Your task to perform on an android device: turn off javascript in the chrome app Image 0: 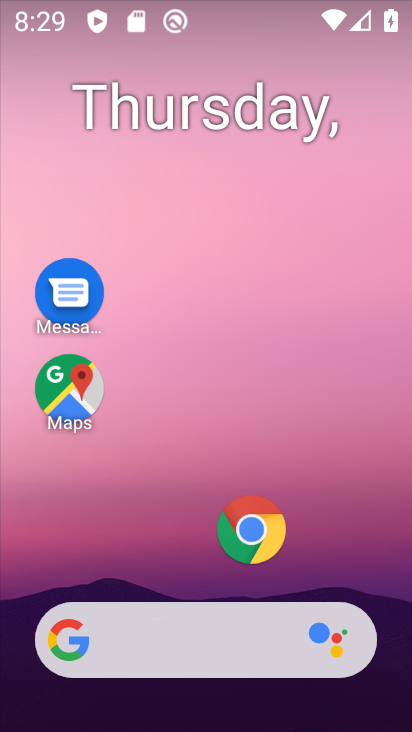
Step 0: click (200, 243)
Your task to perform on an android device: turn off javascript in the chrome app Image 1: 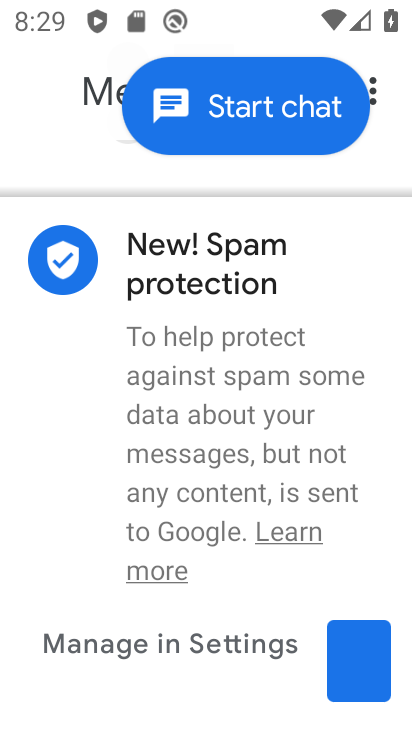
Step 1: press home button
Your task to perform on an android device: turn off javascript in the chrome app Image 2: 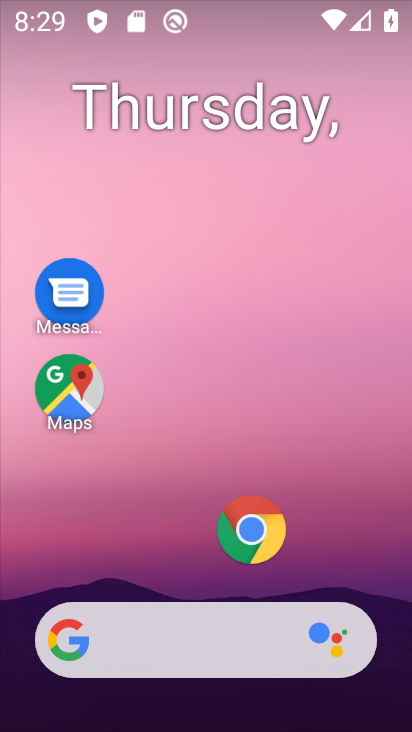
Step 2: click (251, 535)
Your task to perform on an android device: turn off javascript in the chrome app Image 3: 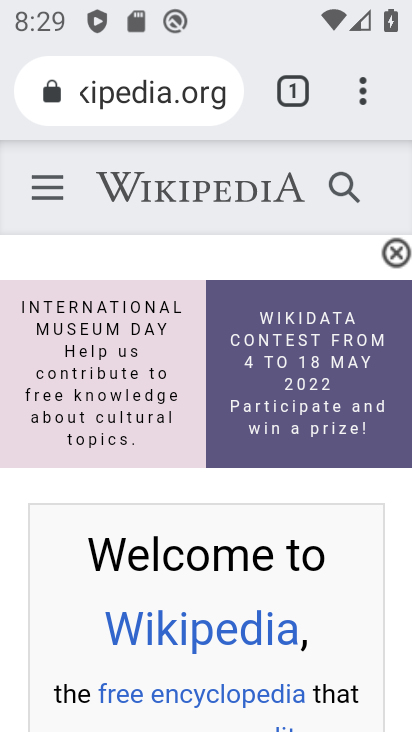
Step 3: click (383, 93)
Your task to perform on an android device: turn off javascript in the chrome app Image 4: 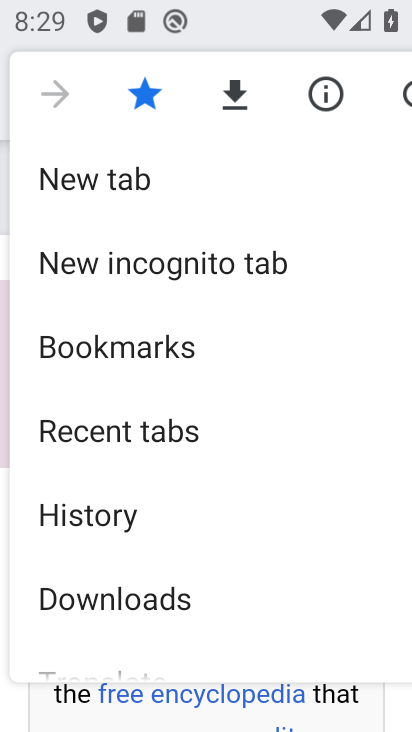
Step 4: drag from (114, 540) to (158, 224)
Your task to perform on an android device: turn off javascript in the chrome app Image 5: 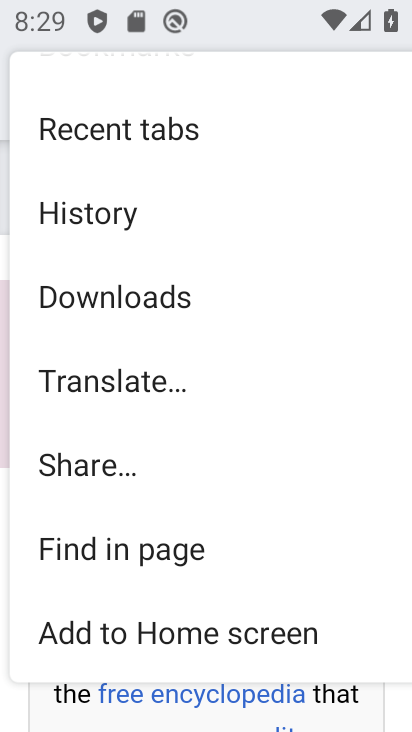
Step 5: drag from (76, 541) to (156, 211)
Your task to perform on an android device: turn off javascript in the chrome app Image 6: 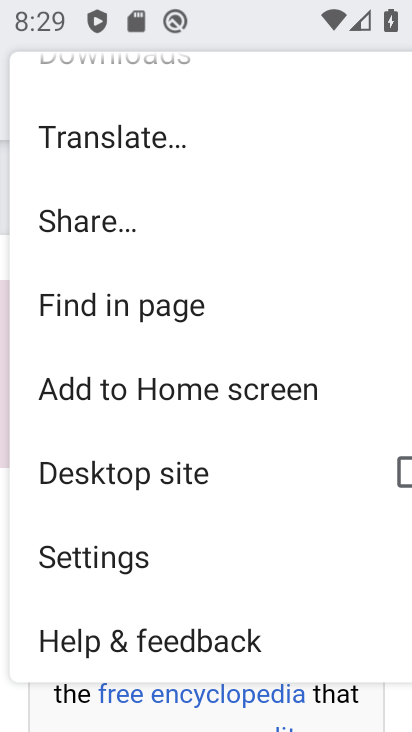
Step 6: click (125, 564)
Your task to perform on an android device: turn off javascript in the chrome app Image 7: 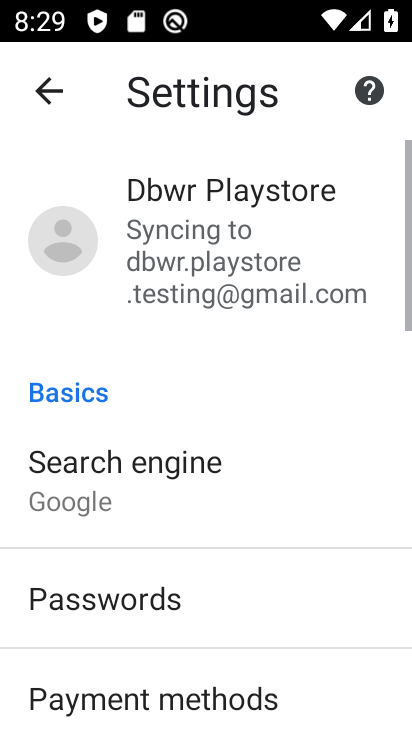
Step 7: drag from (125, 564) to (191, 109)
Your task to perform on an android device: turn off javascript in the chrome app Image 8: 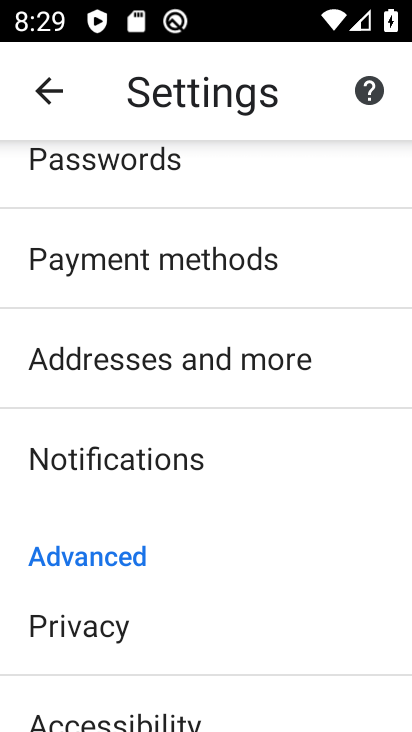
Step 8: drag from (150, 602) to (216, 140)
Your task to perform on an android device: turn off javascript in the chrome app Image 9: 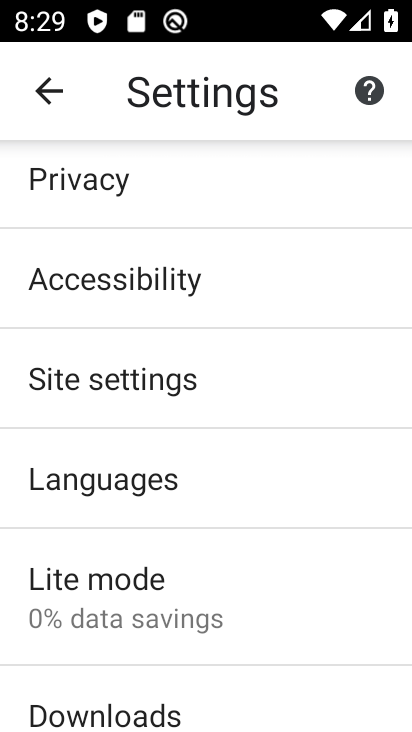
Step 9: click (200, 374)
Your task to perform on an android device: turn off javascript in the chrome app Image 10: 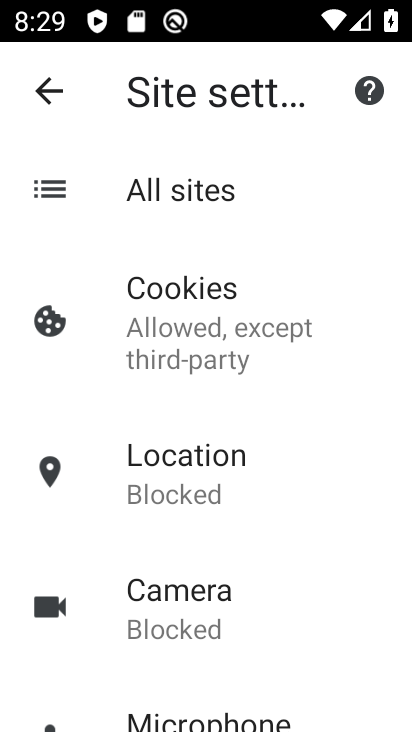
Step 10: drag from (234, 669) to (285, 297)
Your task to perform on an android device: turn off javascript in the chrome app Image 11: 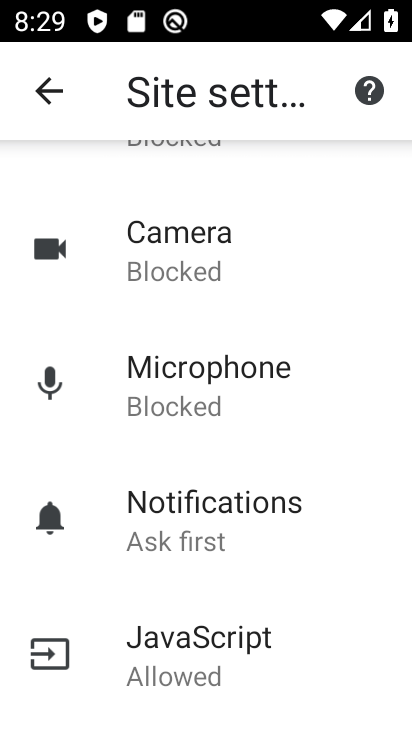
Step 11: click (166, 689)
Your task to perform on an android device: turn off javascript in the chrome app Image 12: 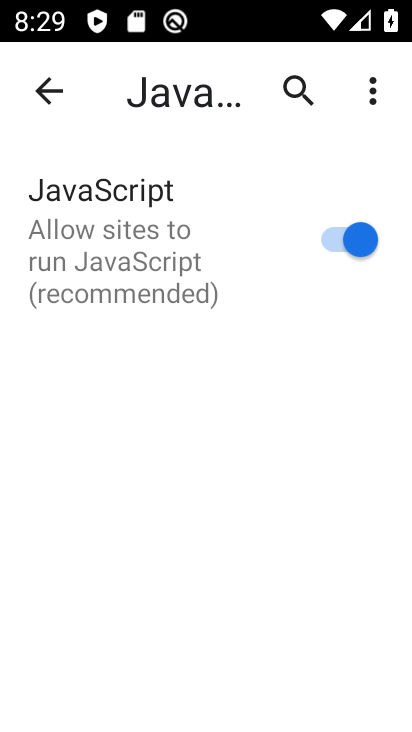
Step 12: click (350, 227)
Your task to perform on an android device: turn off javascript in the chrome app Image 13: 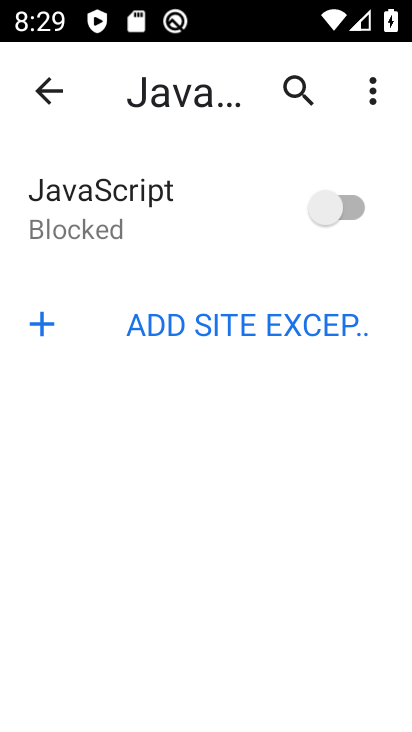
Step 13: task complete